Your task to perform on an android device: Go to Reddit.com Image 0: 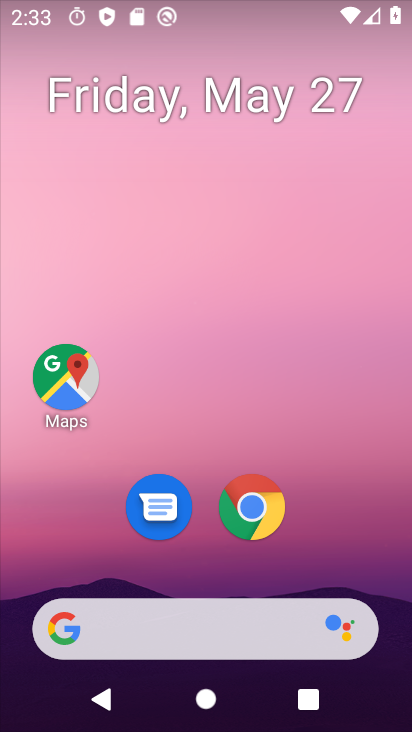
Step 0: drag from (209, 602) to (201, 255)
Your task to perform on an android device: Go to Reddit.com Image 1: 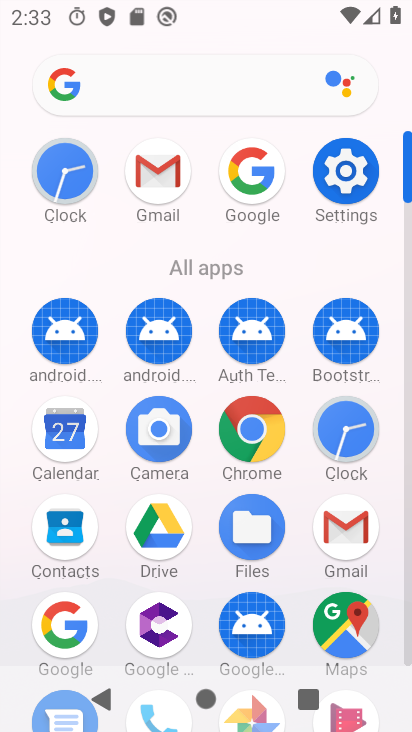
Step 1: click (66, 628)
Your task to perform on an android device: Go to Reddit.com Image 2: 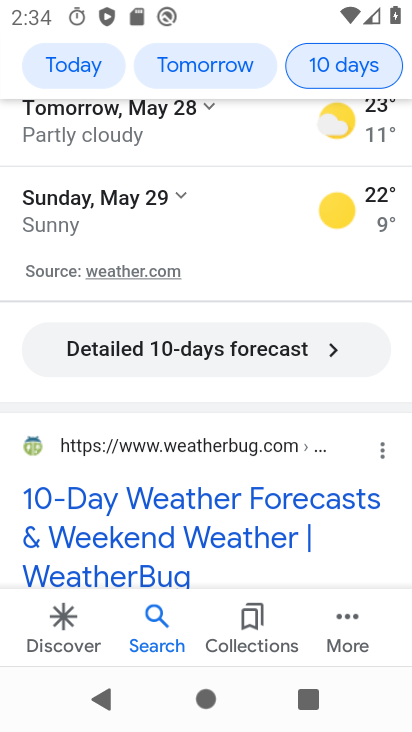
Step 2: drag from (170, 144) to (195, 450)
Your task to perform on an android device: Go to Reddit.com Image 3: 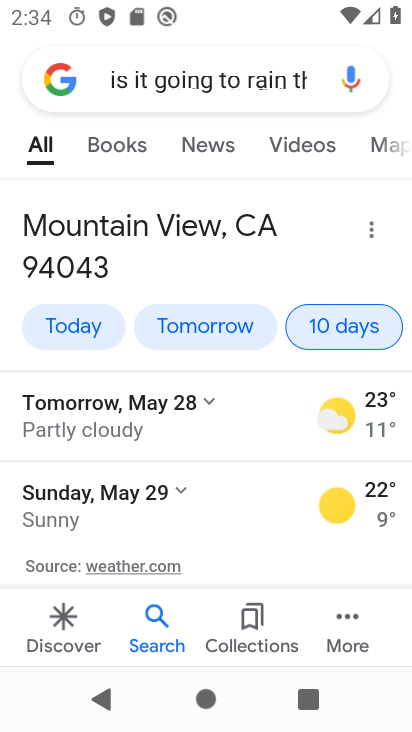
Step 3: click (320, 80)
Your task to perform on an android device: Go to Reddit.com Image 4: 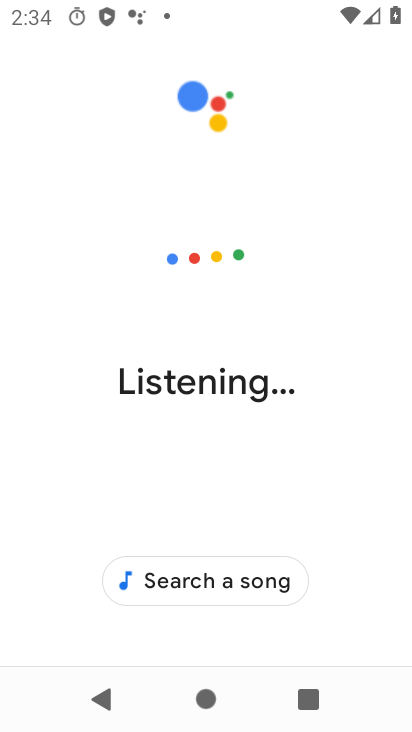
Step 4: press back button
Your task to perform on an android device: Go to Reddit.com Image 5: 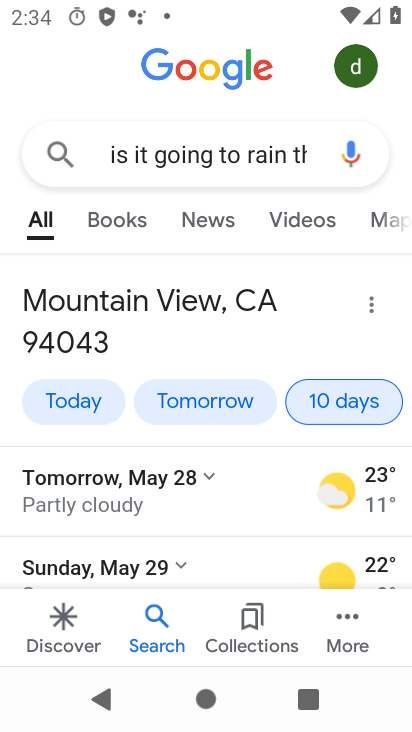
Step 5: click (212, 150)
Your task to perform on an android device: Go to Reddit.com Image 6: 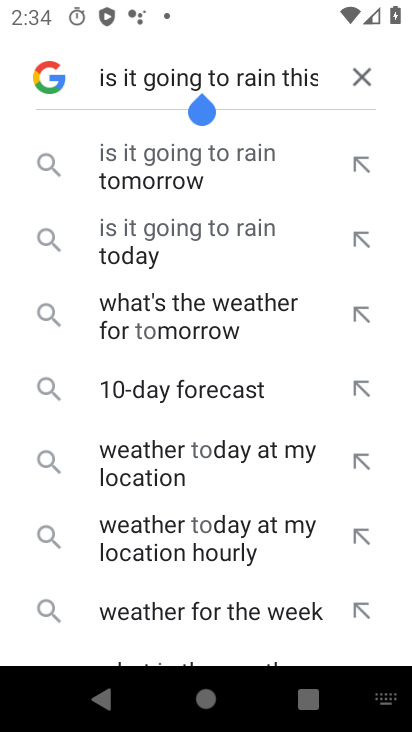
Step 6: click (357, 73)
Your task to perform on an android device: Go to Reddit.com Image 7: 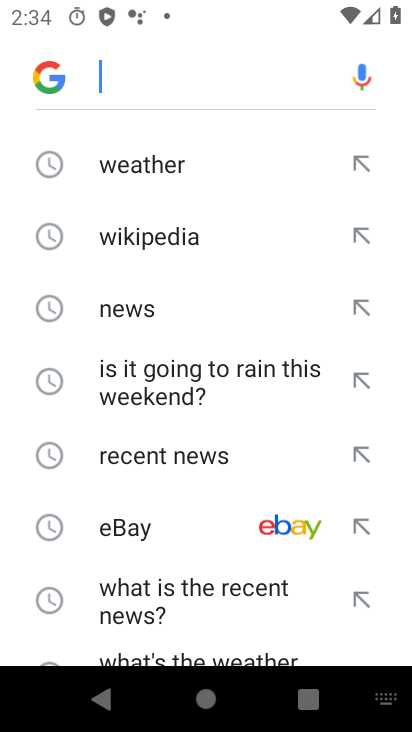
Step 7: drag from (160, 647) to (160, 277)
Your task to perform on an android device: Go to Reddit.com Image 8: 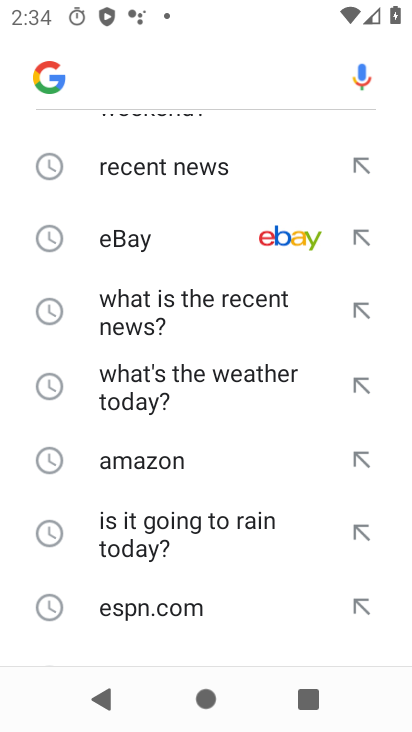
Step 8: drag from (118, 644) to (123, 205)
Your task to perform on an android device: Go to Reddit.com Image 9: 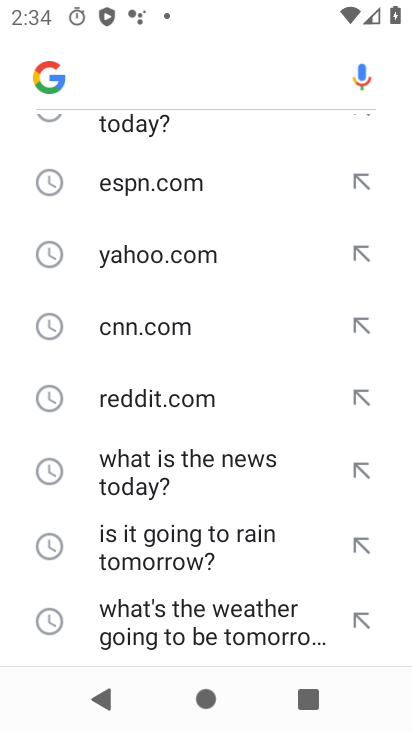
Step 9: click (138, 389)
Your task to perform on an android device: Go to Reddit.com Image 10: 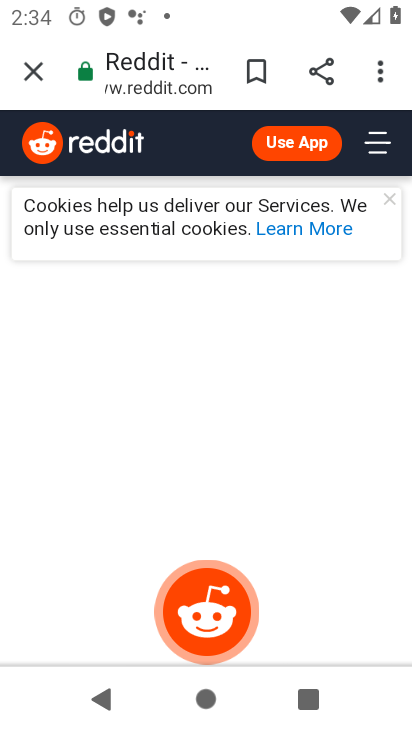
Step 10: task complete